Your task to perform on an android device: turn on location history Image 0: 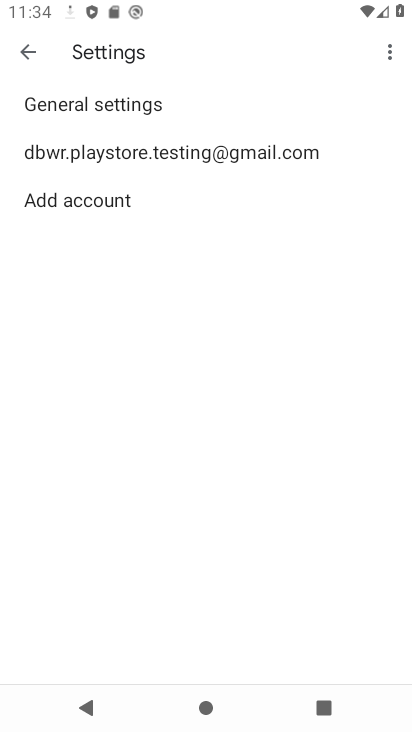
Step 0: press home button
Your task to perform on an android device: turn on location history Image 1: 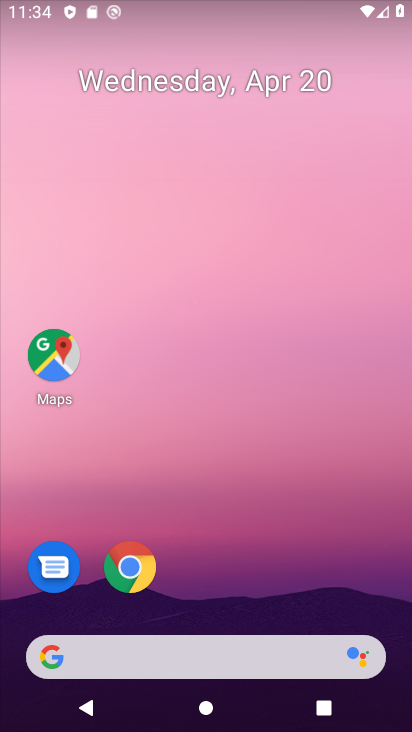
Step 1: drag from (234, 630) to (206, 337)
Your task to perform on an android device: turn on location history Image 2: 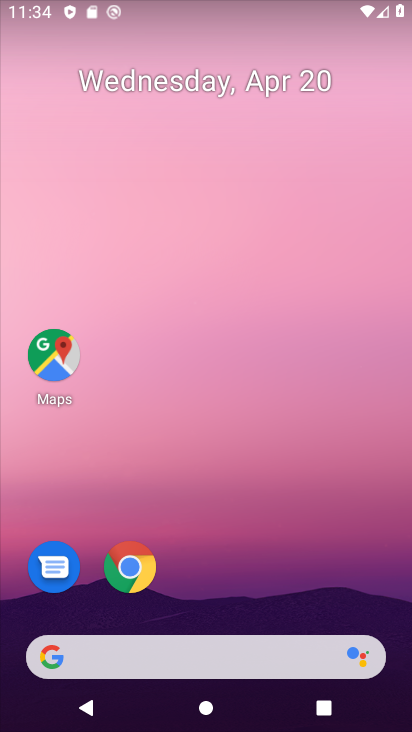
Step 2: drag from (207, 630) to (147, 243)
Your task to perform on an android device: turn on location history Image 3: 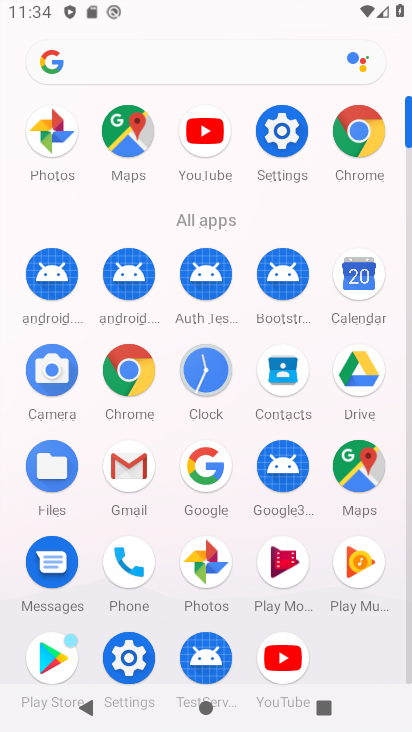
Step 3: click (283, 117)
Your task to perform on an android device: turn on location history Image 4: 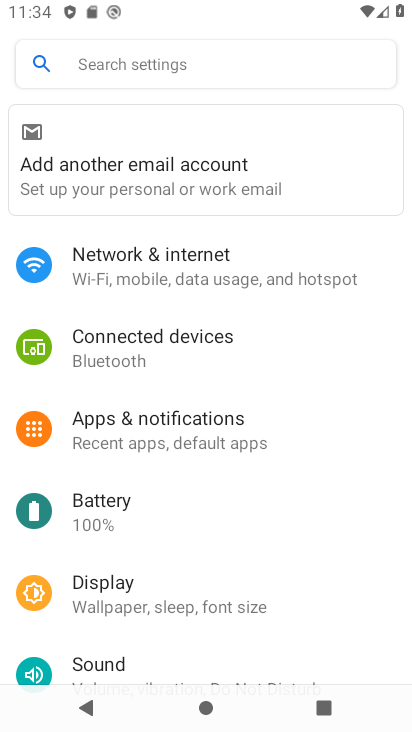
Step 4: drag from (227, 643) to (198, 331)
Your task to perform on an android device: turn on location history Image 5: 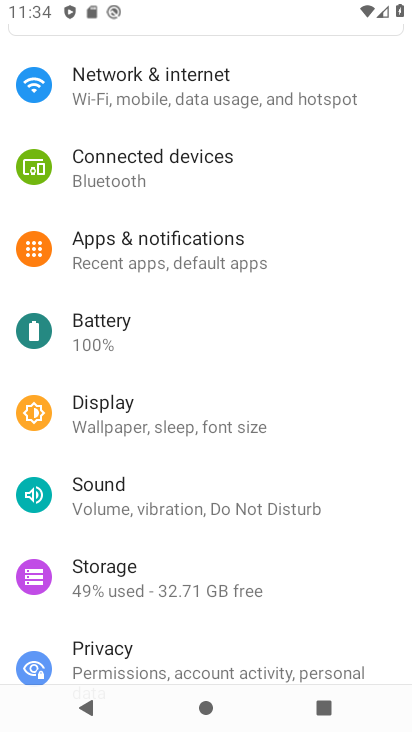
Step 5: drag from (174, 622) to (169, 321)
Your task to perform on an android device: turn on location history Image 6: 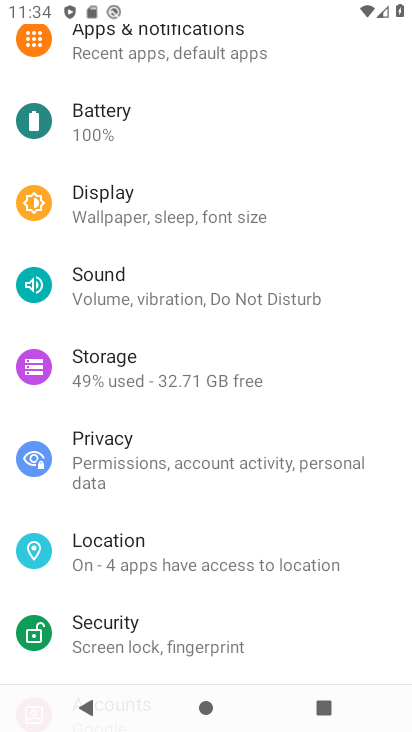
Step 6: click (114, 554)
Your task to perform on an android device: turn on location history Image 7: 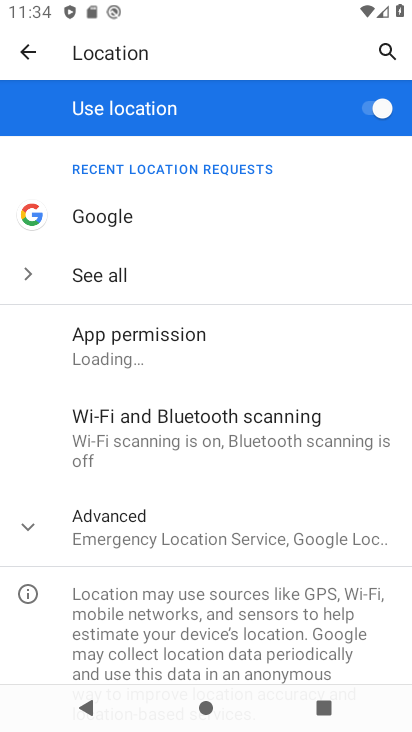
Step 7: click (95, 524)
Your task to perform on an android device: turn on location history Image 8: 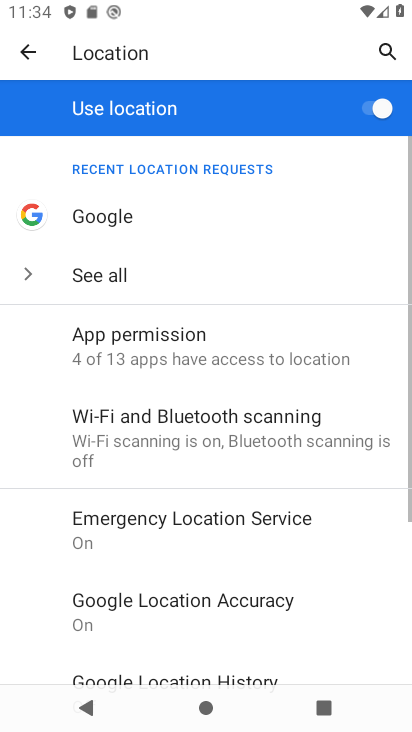
Step 8: drag from (124, 476) to (124, 420)
Your task to perform on an android device: turn on location history Image 9: 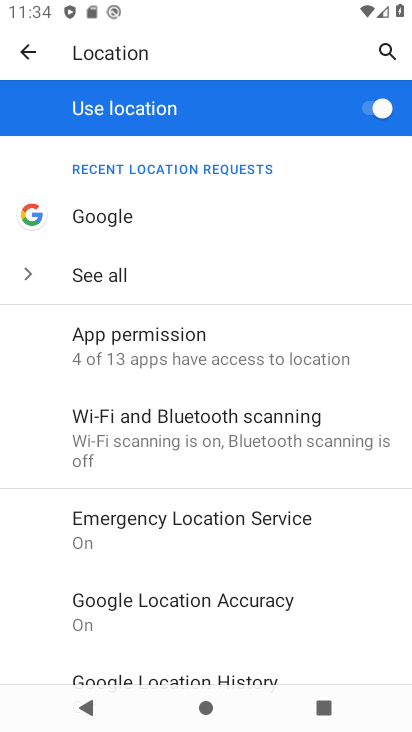
Step 9: drag from (128, 669) to (112, 461)
Your task to perform on an android device: turn on location history Image 10: 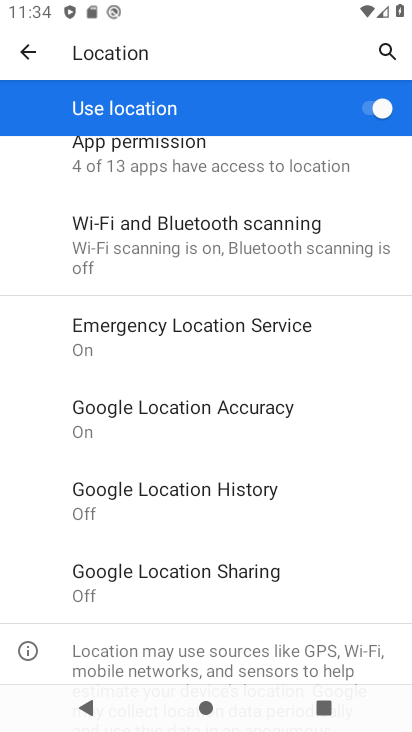
Step 10: click (98, 491)
Your task to perform on an android device: turn on location history Image 11: 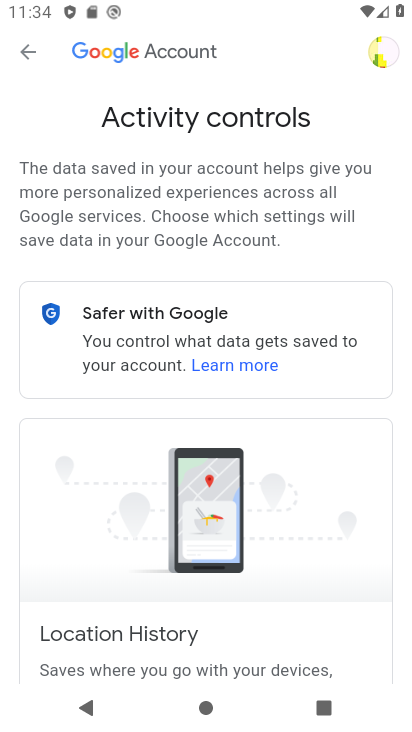
Step 11: task complete